Your task to perform on an android device: open a bookmark in the chrome app Image 0: 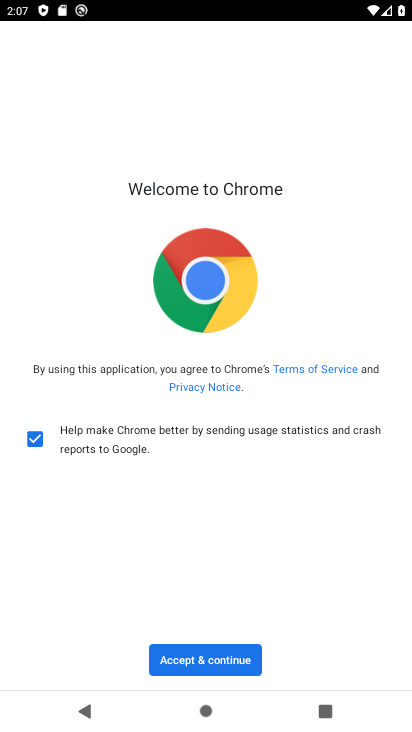
Step 0: click (230, 655)
Your task to perform on an android device: open a bookmark in the chrome app Image 1: 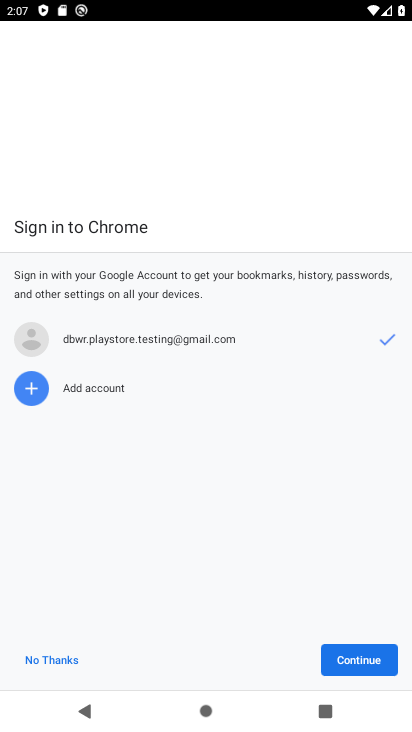
Step 1: click (346, 665)
Your task to perform on an android device: open a bookmark in the chrome app Image 2: 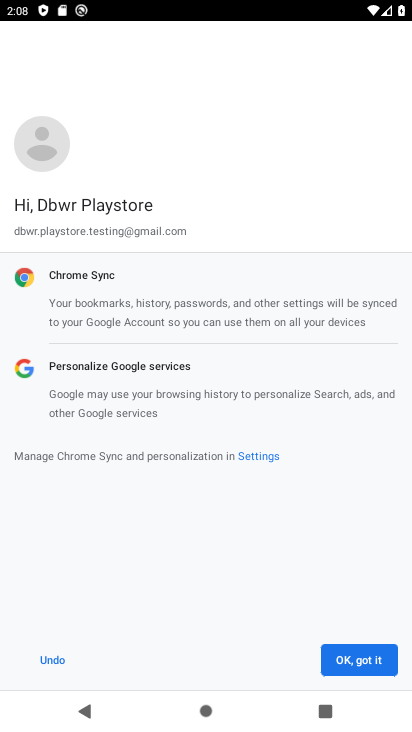
Step 2: drag from (368, 696) to (368, 661)
Your task to perform on an android device: open a bookmark in the chrome app Image 3: 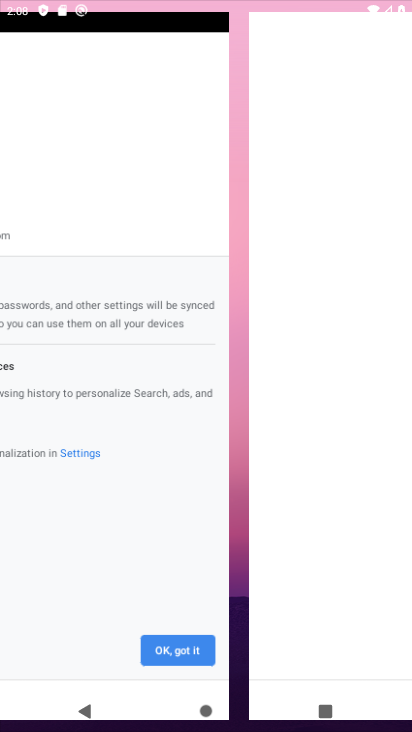
Step 3: click (369, 661)
Your task to perform on an android device: open a bookmark in the chrome app Image 4: 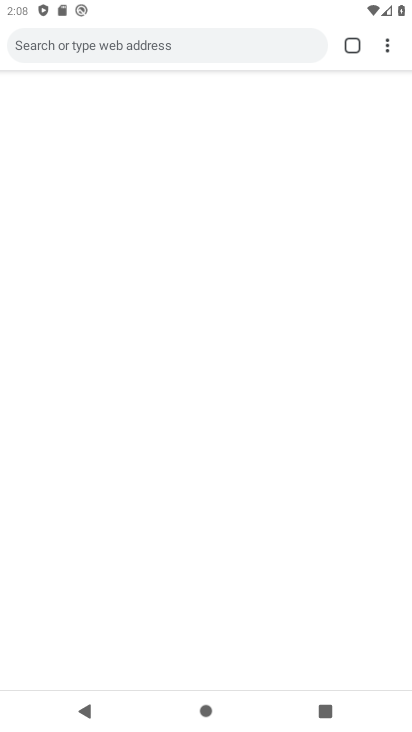
Step 4: click (373, 660)
Your task to perform on an android device: open a bookmark in the chrome app Image 5: 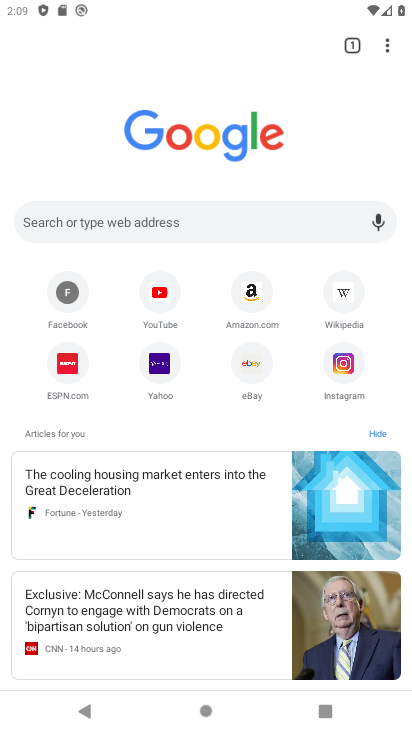
Step 5: drag from (384, 50) to (363, 146)
Your task to perform on an android device: open a bookmark in the chrome app Image 6: 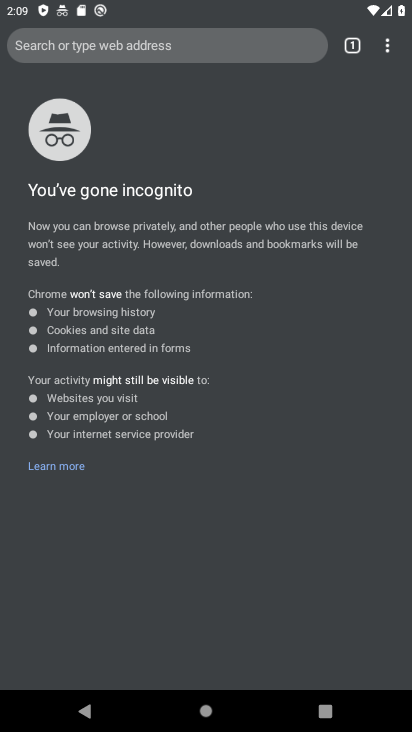
Step 6: press back button
Your task to perform on an android device: open a bookmark in the chrome app Image 7: 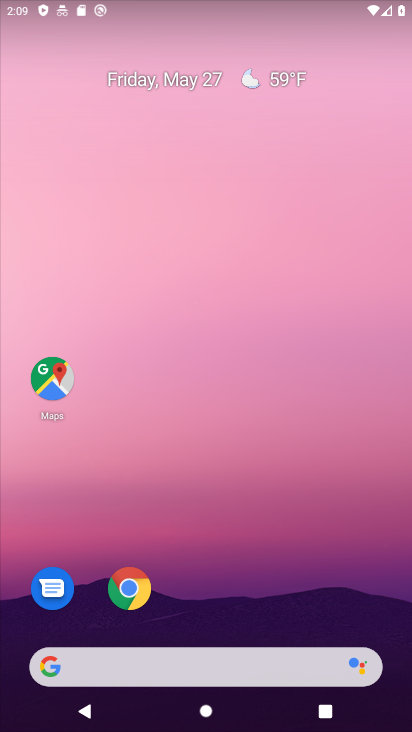
Step 7: drag from (259, 531) to (199, 100)
Your task to perform on an android device: open a bookmark in the chrome app Image 8: 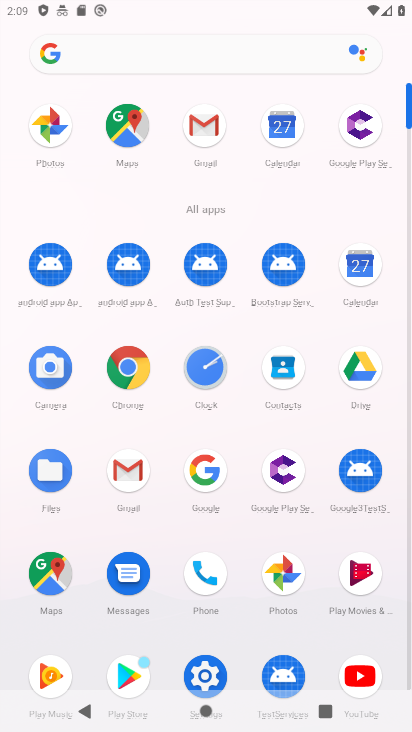
Step 8: drag from (216, 460) to (157, 4)
Your task to perform on an android device: open a bookmark in the chrome app Image 9: 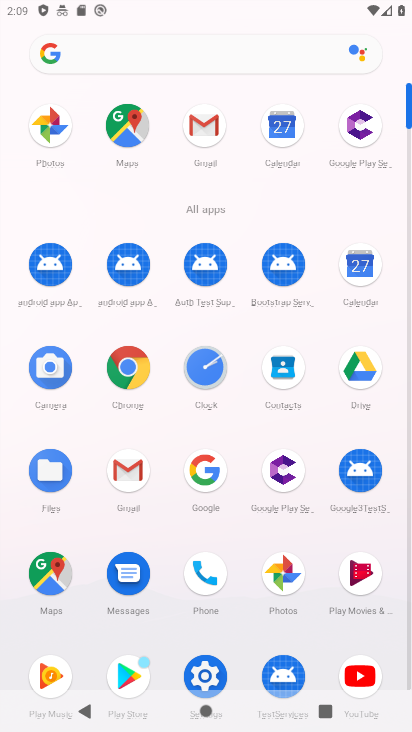
Step 9: click (130, 375)
Your task to perform on an android device: open a bookmark in the chrome app Image 10: 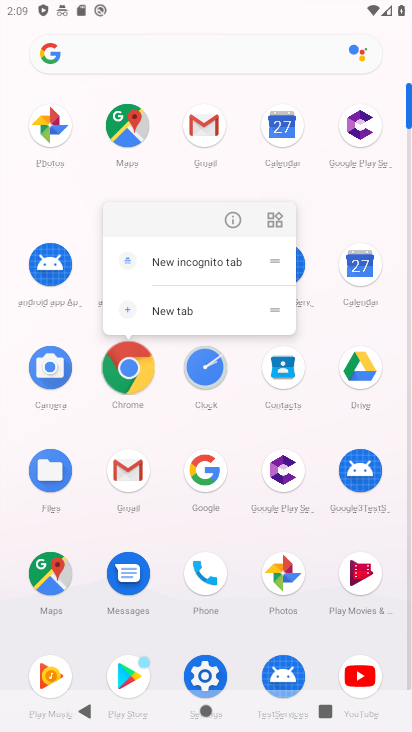
Step 10: click (130, 375)
Your task to perform on an android device: open a bookmark in the chrome app Image 11: 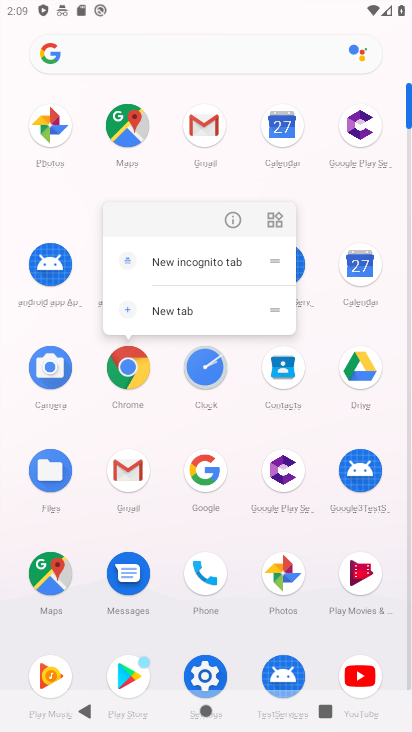
Step 11: click (130, 375)
Your task to perform on an android device: open a bookmark in the chrome app Image 12: 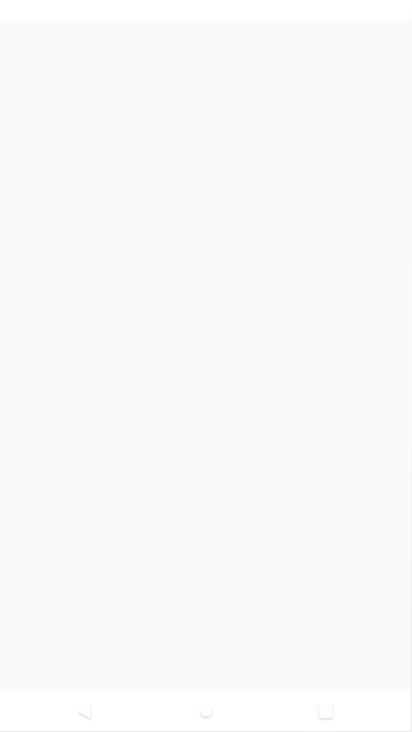
Step 12: click (130, 376)
Your task to perform on an android device: open a bookmark in the chrome app Image 13: 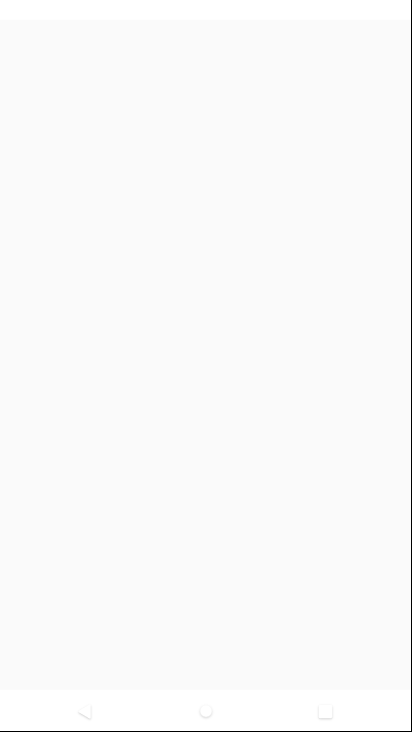
Step 13: click (130, 376)
Your task to perform on an android device: open a bookmark in the chrome app Image 14: 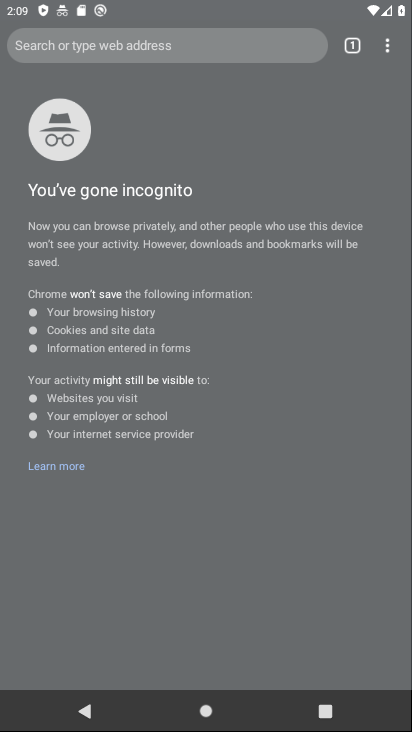
Step 14: click (130, 371)
Your task to perform on an android device: open a bookmark in the chrome app Image 15: 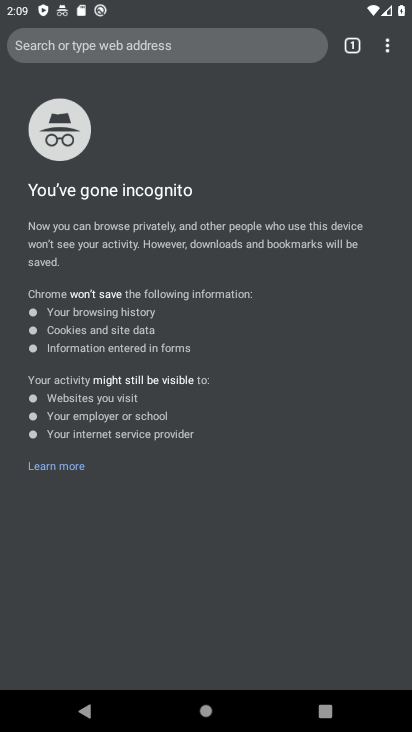
Step 15: click (385, 48)
Your task to perform on an android device: open a bookmark in the chrome app Image 16: 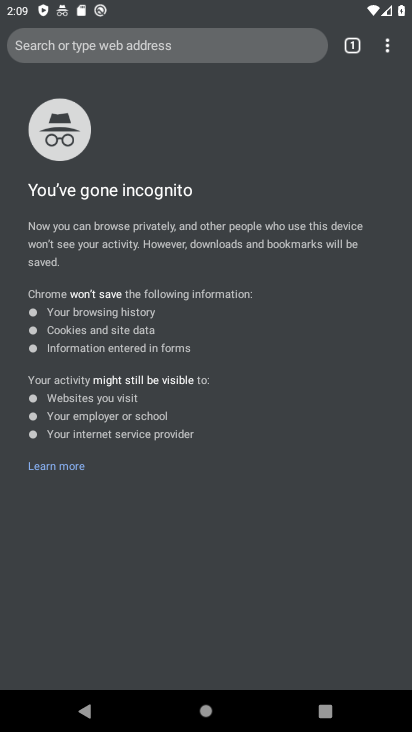
Step 16: click (389, 49)
Your task to perform on an android device: open a bookmark in the chrome app Image 17: 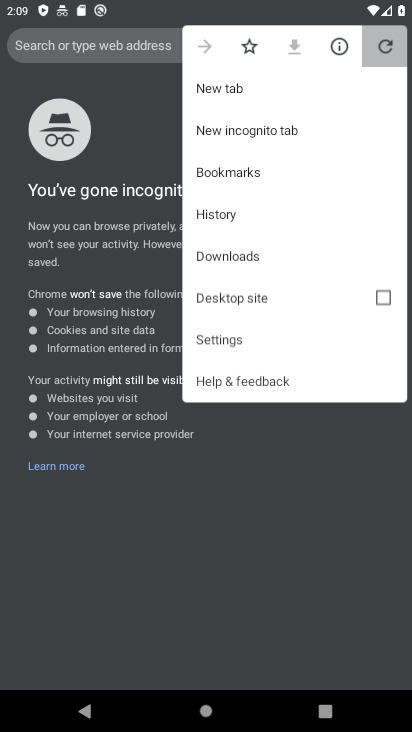
Step 17: click (388, 50)
Your task to perform on an android device: open a bookmark in the chrome app Image 18: 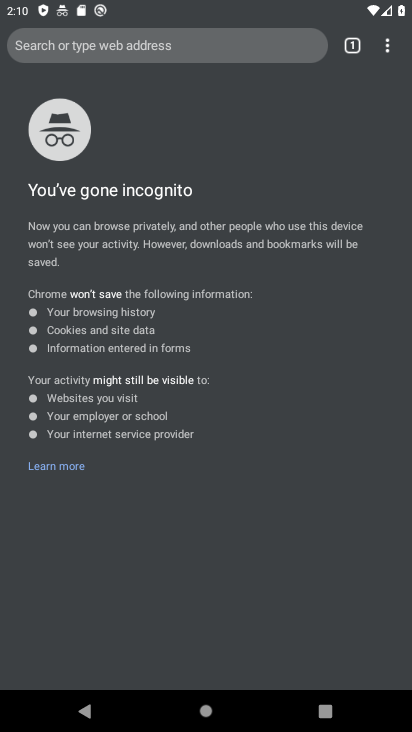
Step 18: click (389, 54)
Your task to perform on an android device: open a bookmark in the chrome app Image 19: 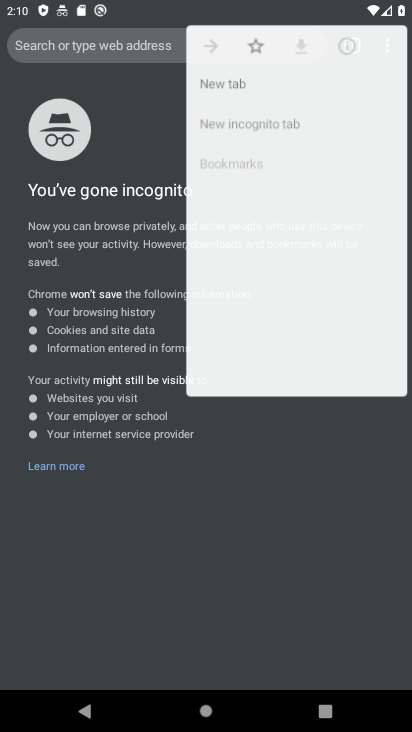
Step 19: click (390, 54)
Your task to perform on an android device: open a bookmark in the chrome app Image 20: 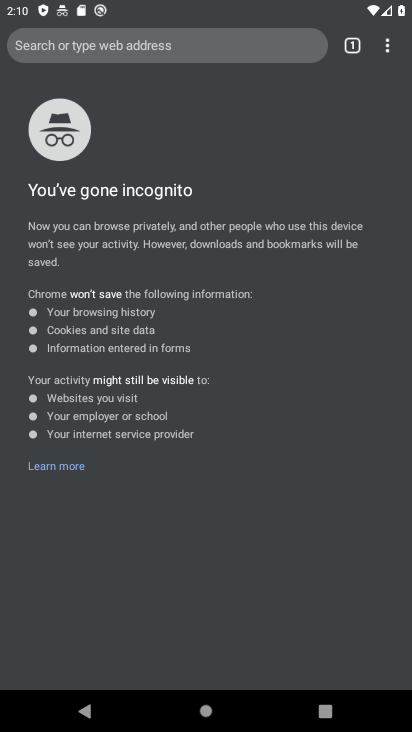
Step 20: click (385, 55)
Your task to perform on an android device: open a bookmark in the chrome app Image 21: 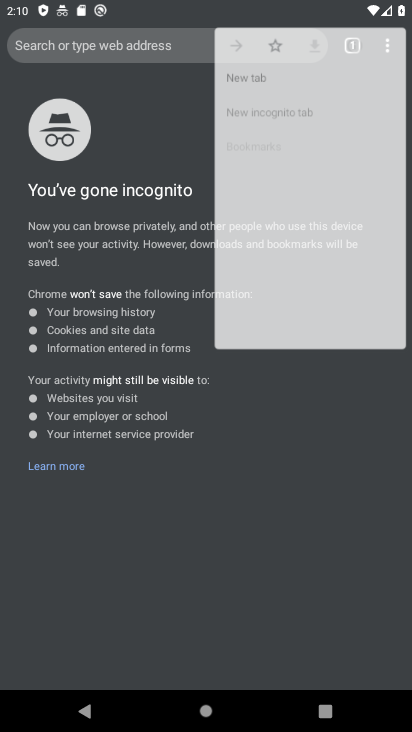
Step 21: click (385, 55)
Your task to perform on an android device: open a bookmark in the chrome app Image 22: 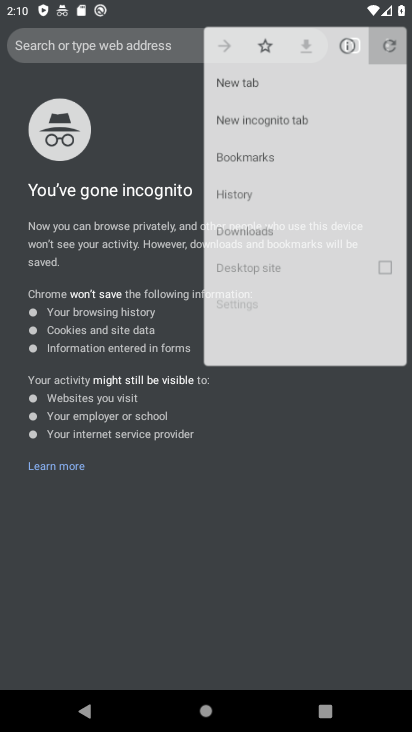
Step 22: click (385, 55)
Your task to perform on an android device: open a bookmark in the chrome app Image 23: 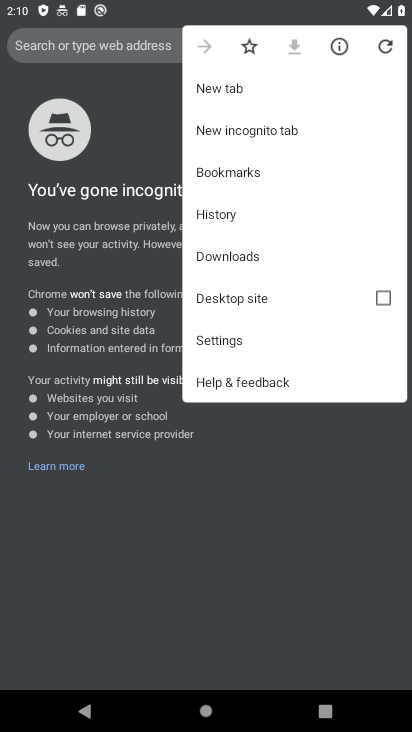
Step 23: drag from (276, 282) to (217, 342)
Your task to perform on an android device: open a bookmark in the chrome app Image 24: 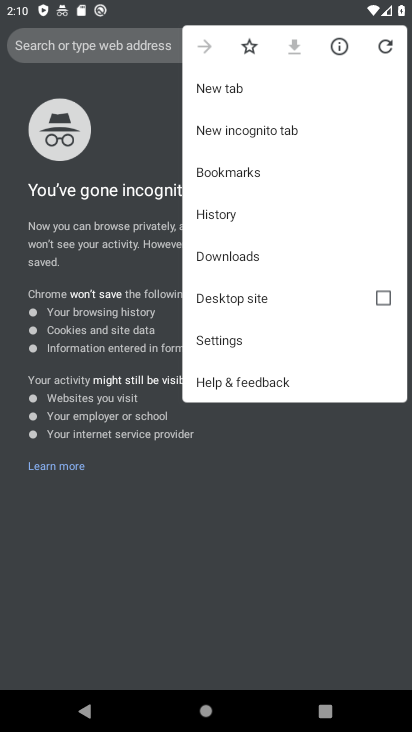
Step 24: click (221, 340)
Your task to perform on an android device: open a bookmark in the chrome app Image 25: 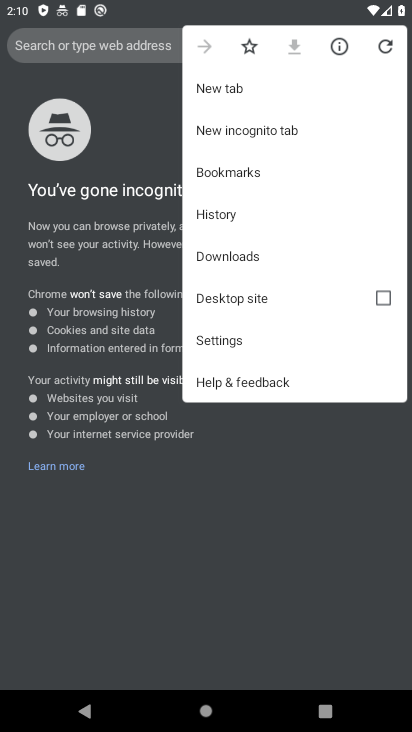
Step 25: click (221, 340)
Your task to perform on an android device: open a bookmark in the chrome app Image 26: 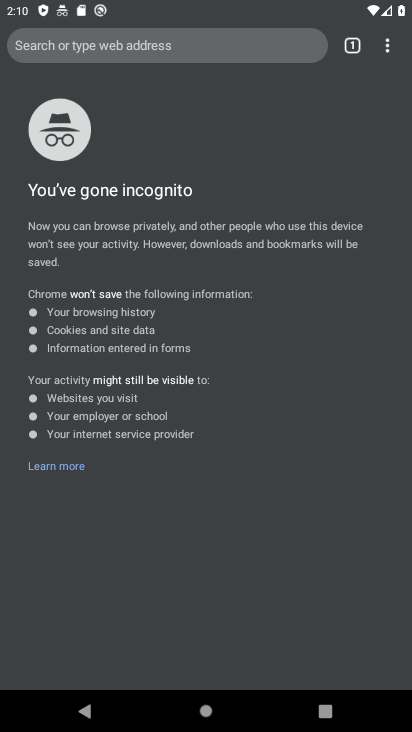
Step 26: click (216, 331)
Your task to perform on an android device: open a bookmark in the chrome app Image 27: 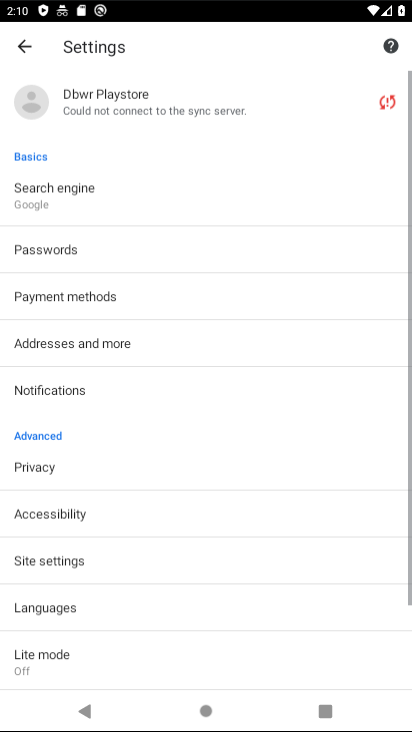
Step 27: click (216, 328)
Your task to perform on an android device: open a bookmark in the chrome app Image 28: 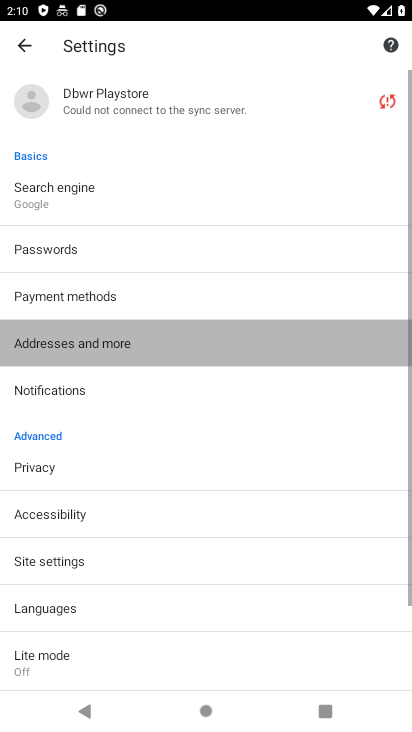
Step 28: click (218, 332)
Your task to perform on an android device: open a bookmark in the chrome app Image 29: 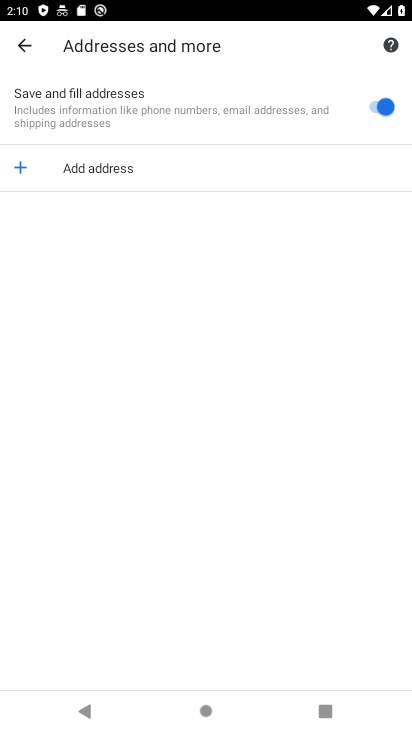
Step 29: click (20, 47)
Your task to perform on an android device: open a bookmark in the chrome app Image 30: 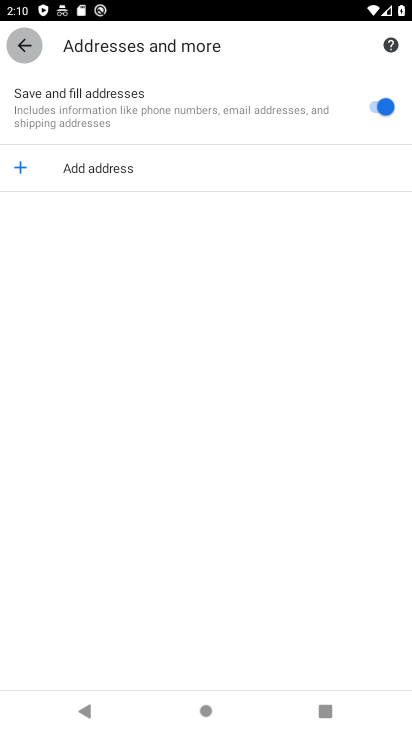
Step 30: click (20, 47)
Your task to perform on an android device: open a bookmark in the chrome app Image 31: 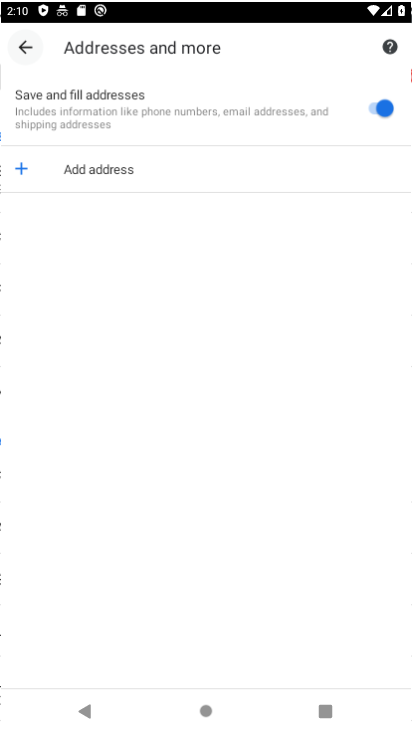
Step 31: click (20, 46)
Your task to perform on an android device: open a bookmark in the chrome app Image 32: 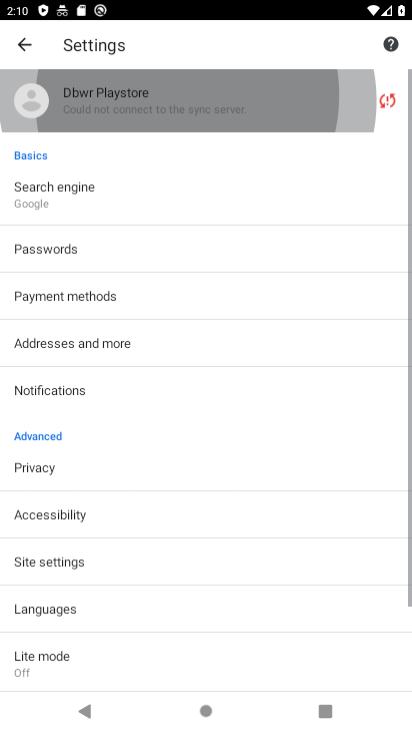
Step 32: click (20, 46)
Your task to perform on an android device: open a bookmark in the chrome app Image 33: 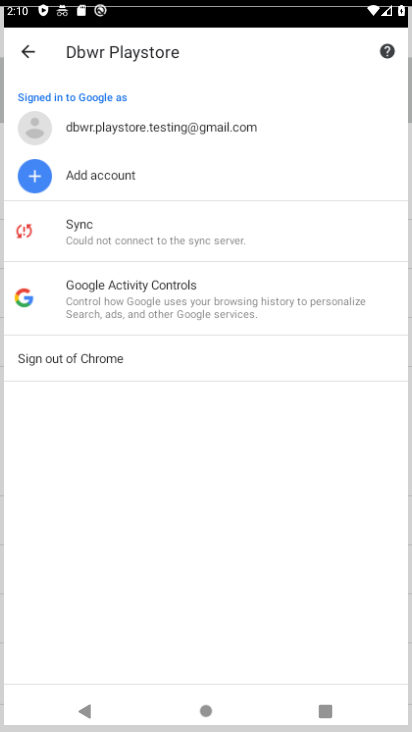
Step 33: click (20, 46)
Your task to perform on an android device: open a bookmark in the chrome app Image 34: 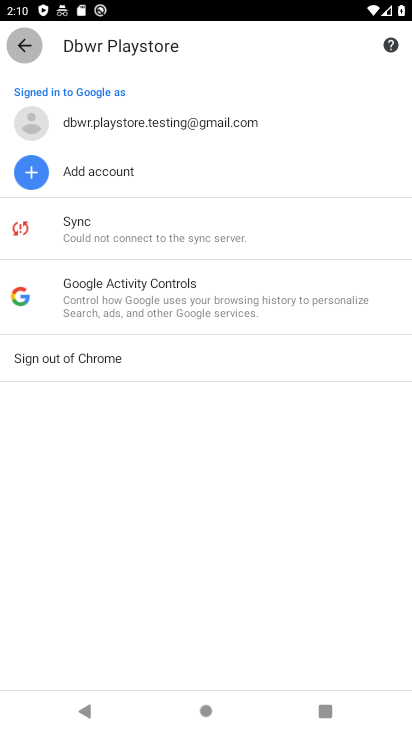
Step 34: click (24, 44)
Your task to perform on an android device: open a bookmark in the chrome app Image 35: 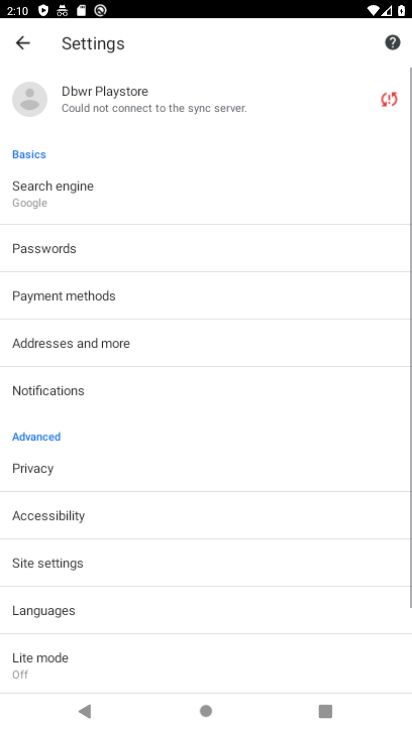
Step 35: click (22, 44)
Your task to perform on an android device: open a bookmark in the chrome app Image 36: 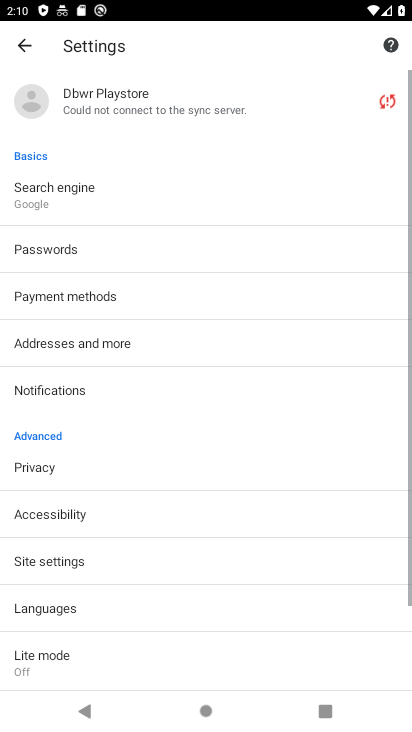
Step 36: click (22, 44)
Your task to perform on an android device: open a bookmark in the chrome app Image 37: 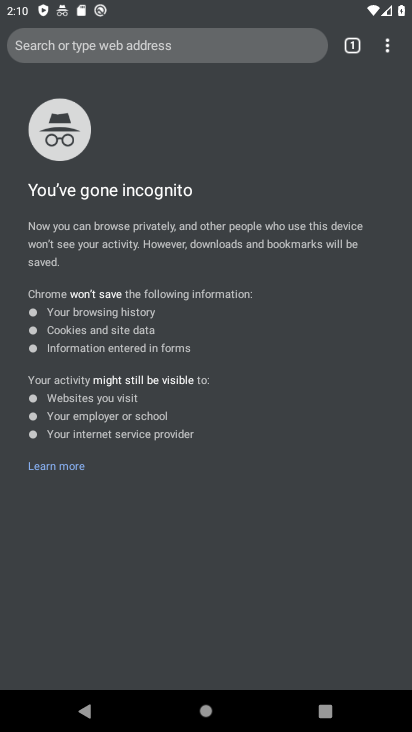
Step 37: click (386, 48)
Your task to perform on an android device: open a bookmark in the chrome app Image 38: 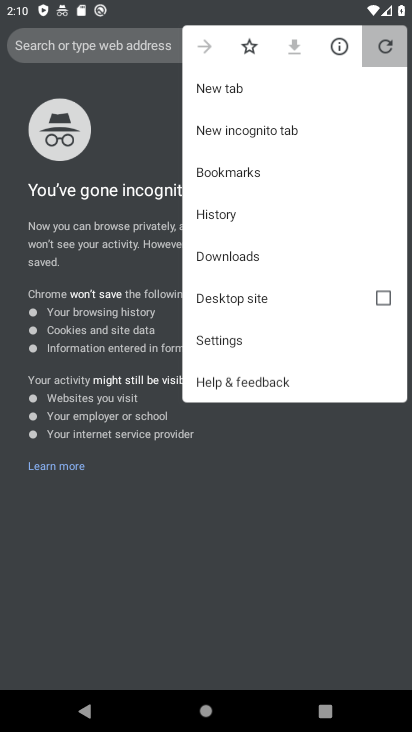
Step 38: click (385, 49)
Your task to perform on an android device: open a bookmark in the chrome app Image 39: 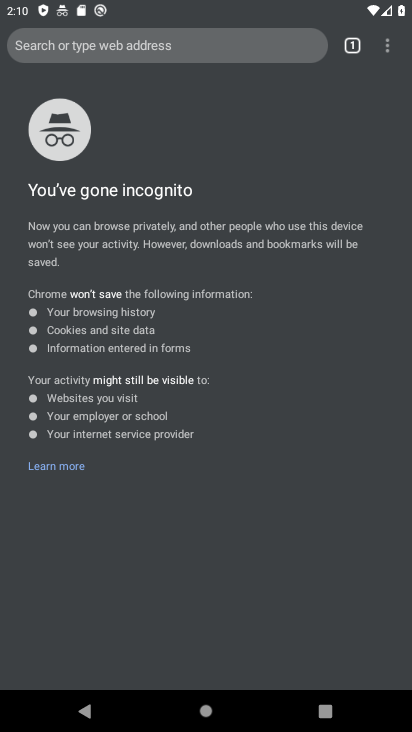
Step 39: drag from (385, 53) to (212, 168)
Your task to perform on an android device: open a bookmark in the chrome app Image 40: 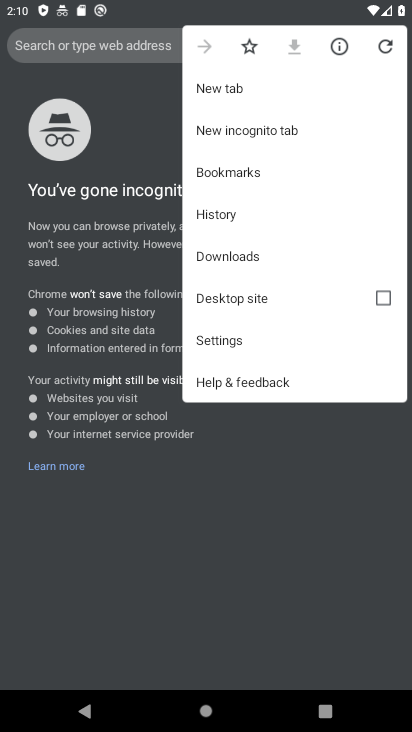
Step 40: click (212, 168)
Your task to perform on an android device: open a bookmark in the chrome app Image 41: 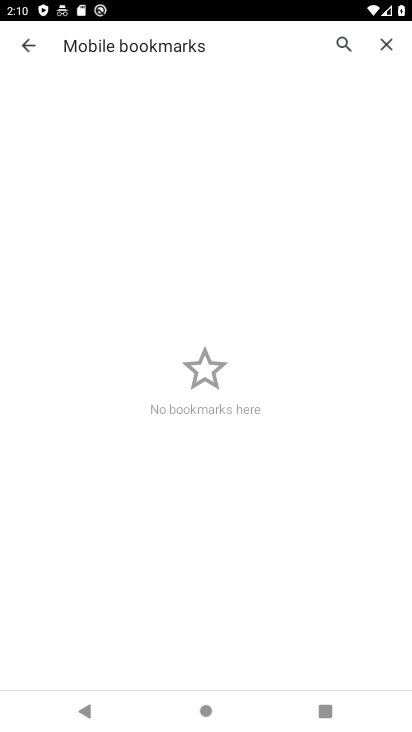
Step 41: task complete